Your task to perform on an android device: snooze an email in the gmail app Image 0: 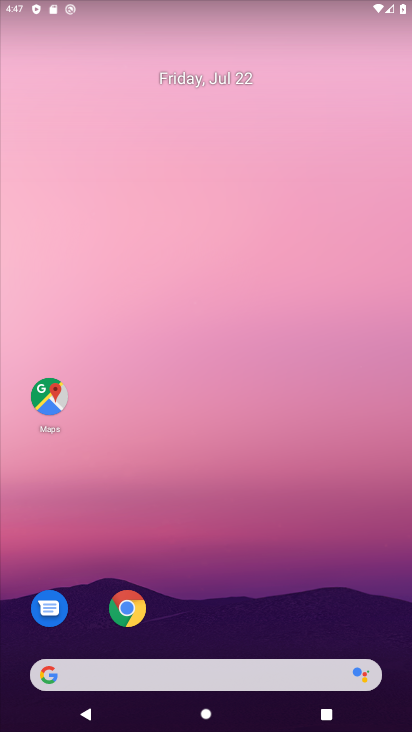
Step 0: drag from (172, 636) to (198, 147)
Your task to perform on an android device: snooze an email in the gmail app Image 1: 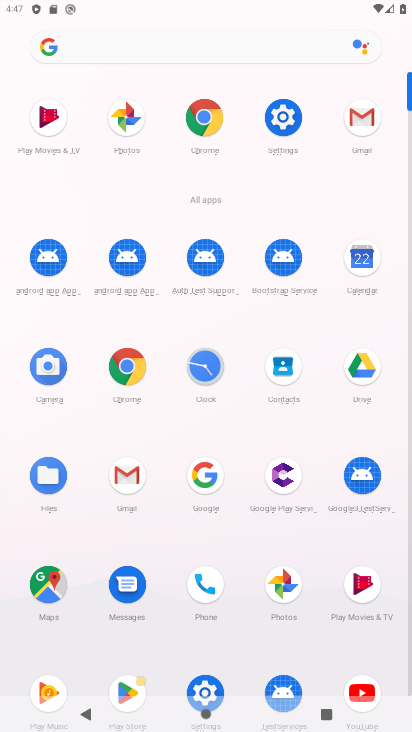
Step 1: click (370, 114)
Your task to perform on an android device: snooze an email in the gmail app Image 2: 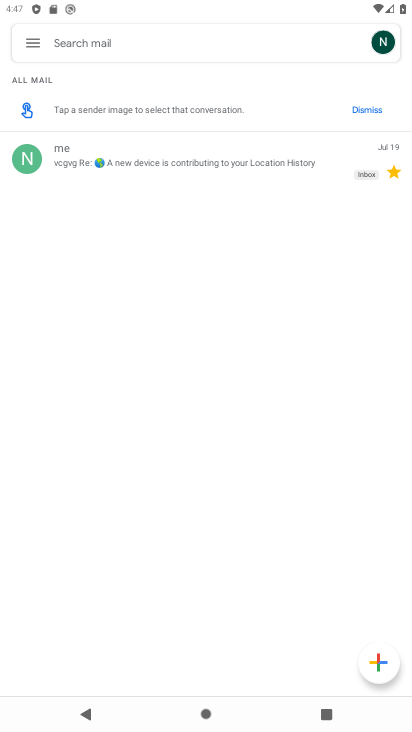
Step 2: click (35, 166)
Your task to perform on an android device: snooze an email in the gmail app Image 3: 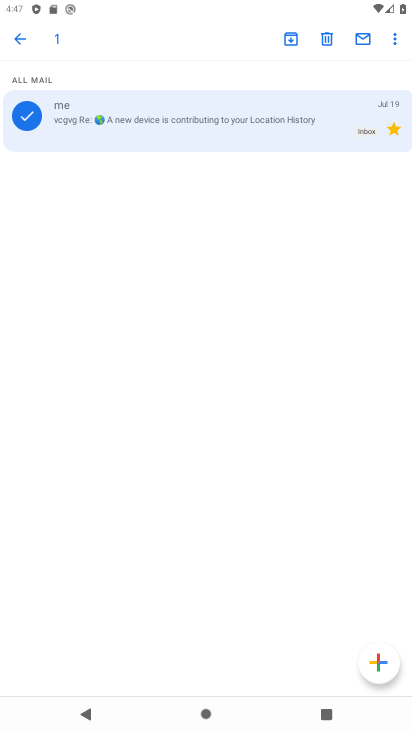
Step 3: click (399, 35)
Your task to perform on an android device: snooze an email in the gmail app Image 4: 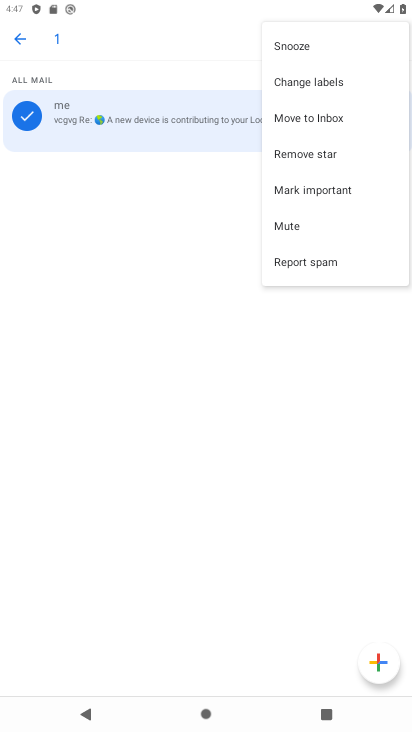
Step 4: click (305, 48)
Your task to perform on an android device: snooze an email in the gmail app Image 5: 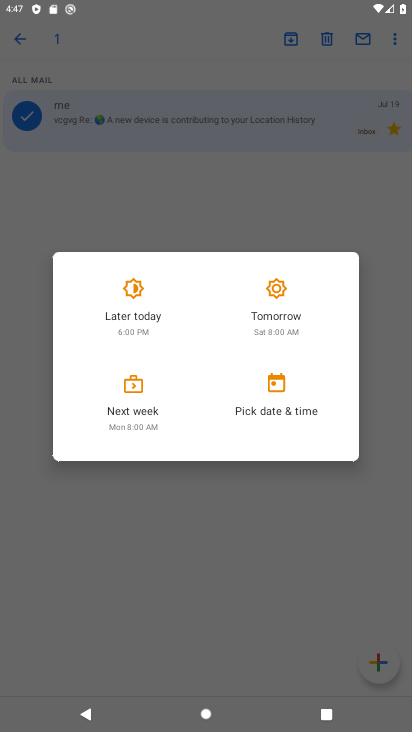
Step 5: click (142, 405)
Your task to perform on an android device: snooze an email in the gmail app Image 6: 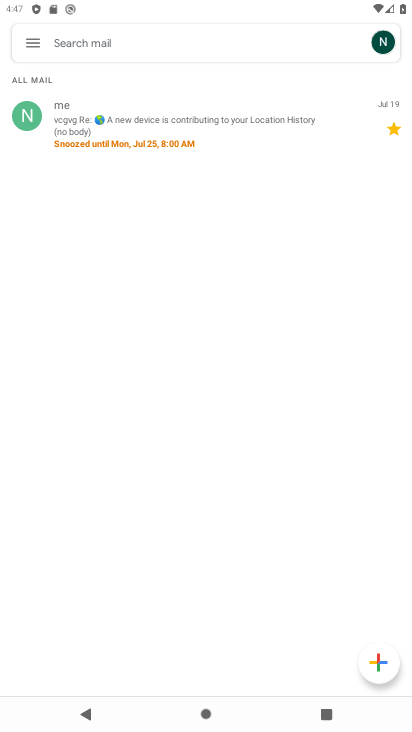
Step 6: task complete